Your task to perform on an android device: make emails show in primary in the gmail app Image 0: 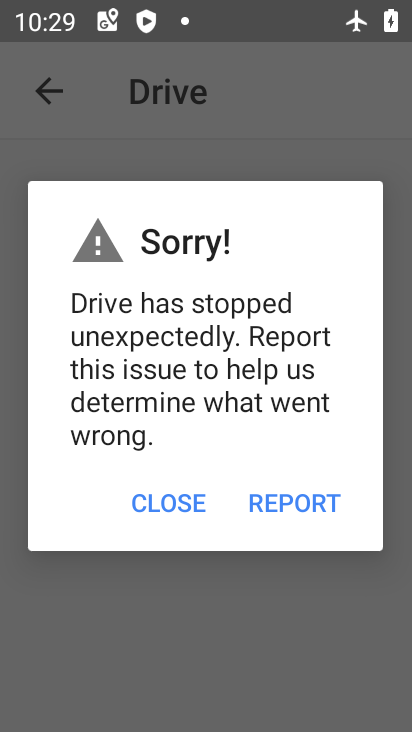
Step 0: press home button
Your task to perform on an android device: make emails show in primary in the gmail app Image 1: 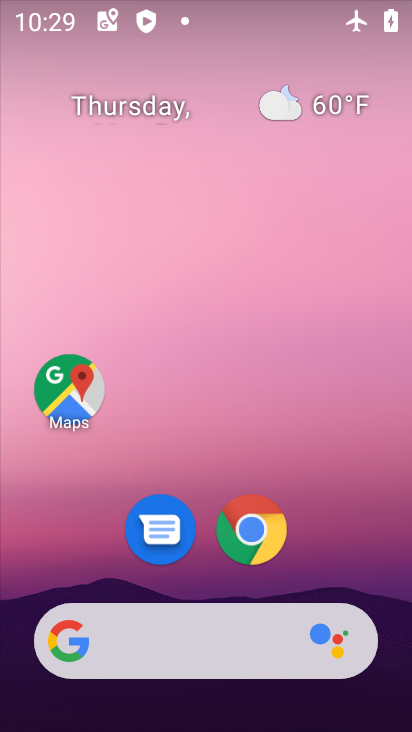
Step 1: drag from (346, 551) to (213, 168)
Your task to perform on an android device: make emails show in primary in the gmail app Image 2: 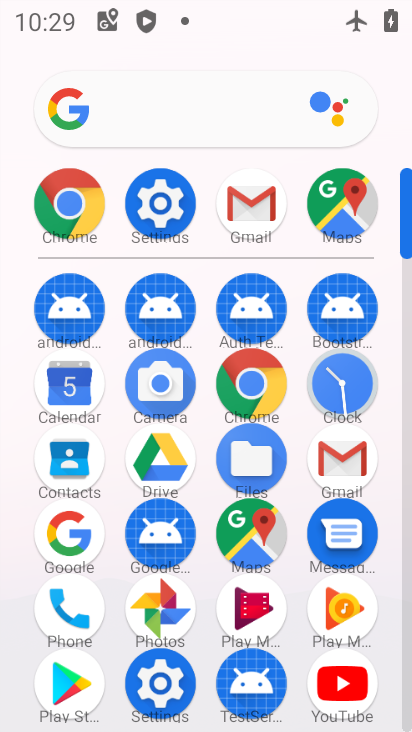
Step 2: click (339, 456)
Your task to perform on an android device: make emails show in primary in the gmail app Image 3: 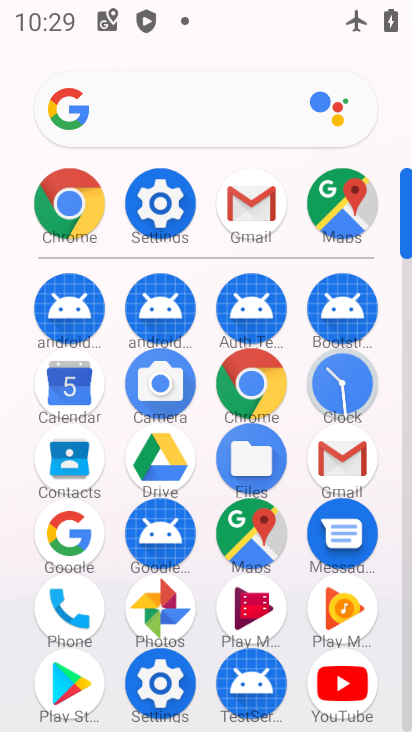
Step 3: click (339, 456)
Your task to perform on an android device: make emails show in primary in the gmail app Image 4: 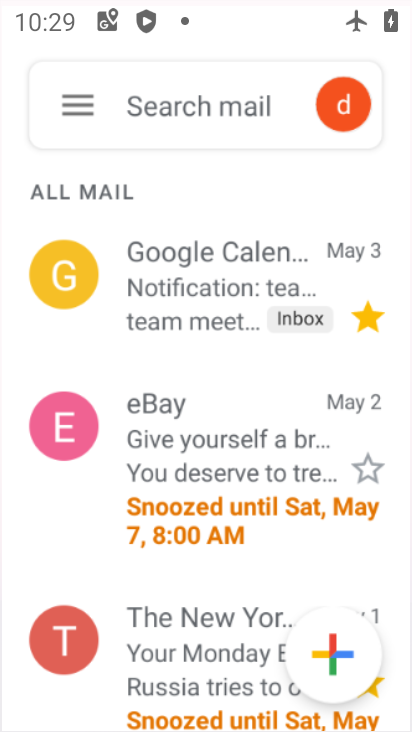
Step 4: click (339, 456)
Your task to perform on an android device: make emails show in primary in the gmail app Image 5: 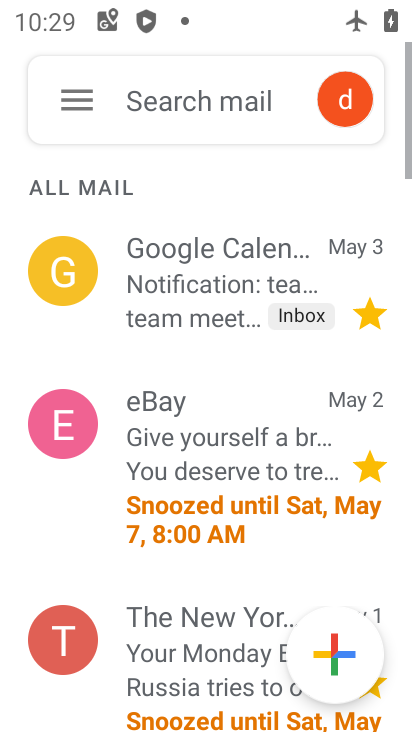
Step 5: click (340, 456)
Your task to perform on an android device: make emails show in primary in the gmail app Image 6: 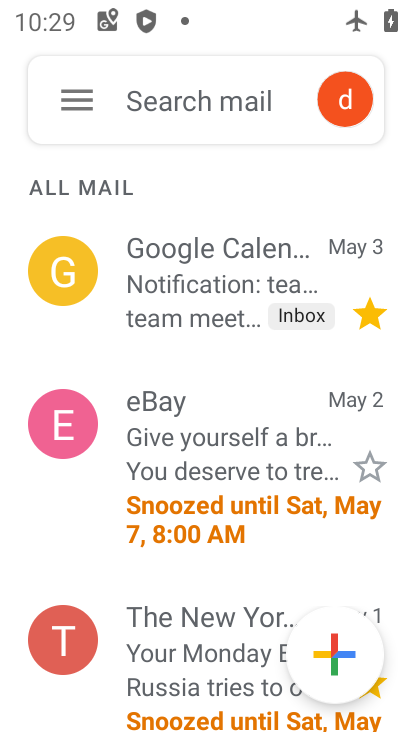
Step 6: click (82, 98)
Your task to perform on an android device: make emails show in primary in the gmail app Image 7: 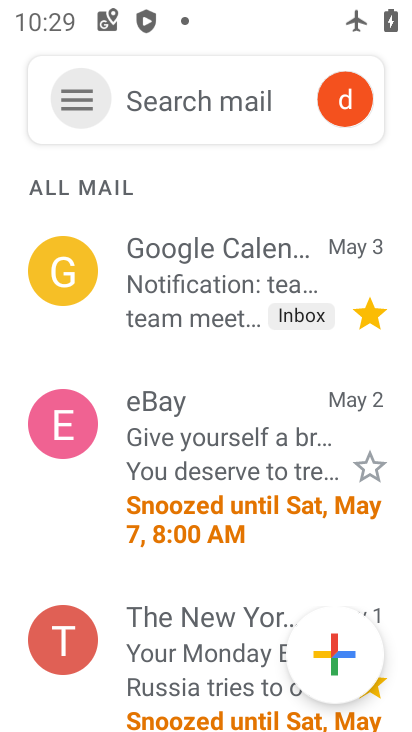
Step 7: click (76, 100)
Your task to perform on an android device: make emails show in primary in the gmail app Image 8: 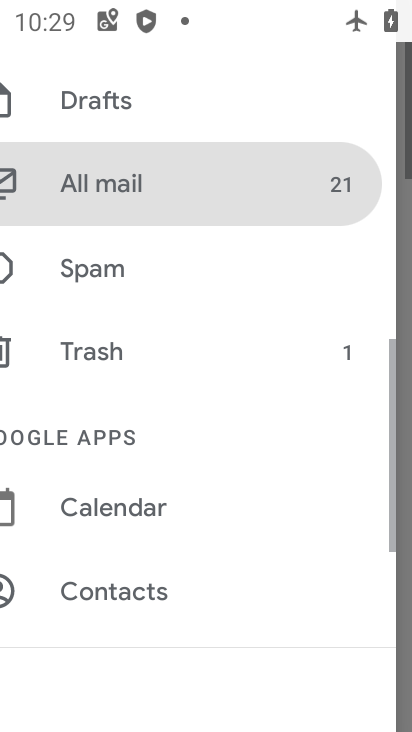
Step 8: click (76, 100)
Your task to perform on an android device: make emails show in primary in the gmail app Image 9: 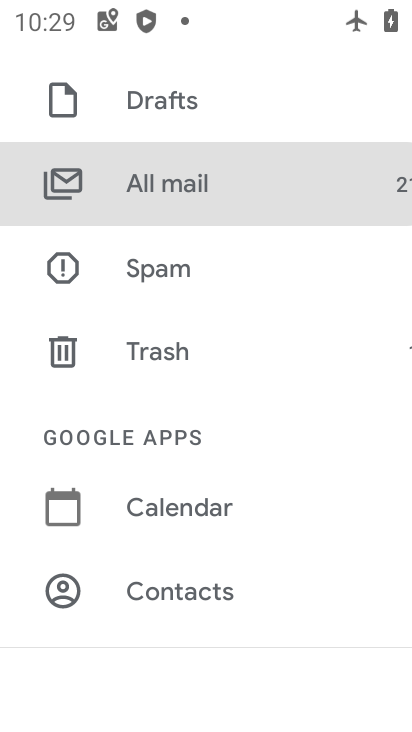
Step 9: drag from (242, 602) to (186, 167)
Your task to perform on an android device: make emails show in primary in the gmail app Image 10: 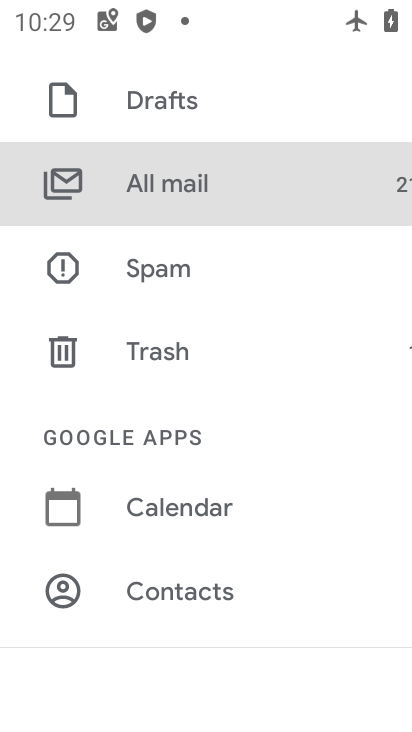
Step 10: drag from (192, 559) to (180, 227)
Your task to perform on an android device: make emails show in primary in the gmail app Image 11: 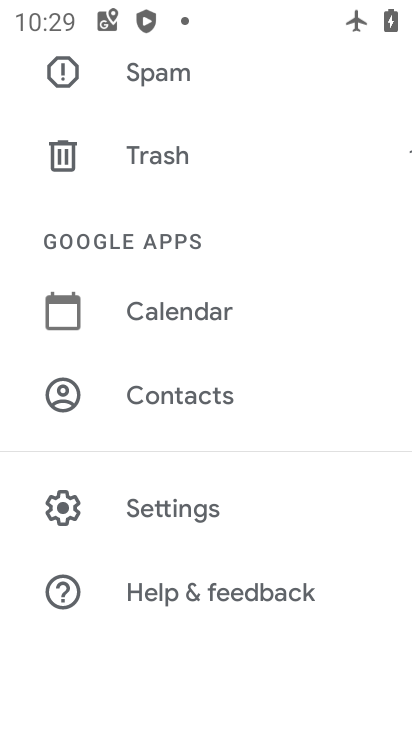
Step 11: click (170, 508)
Your task to perform on an android device: make emails show in primary in the gmail app Image 12: 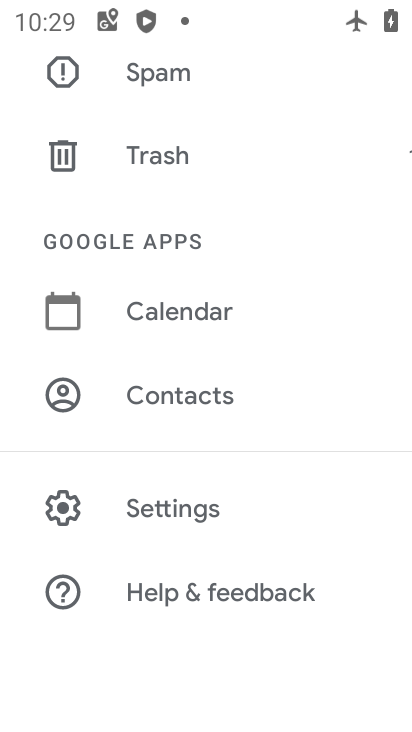
Step 12: click (170, 508)
Your task to perform on an android device: make emails show in primary in the gmail app Image 13: 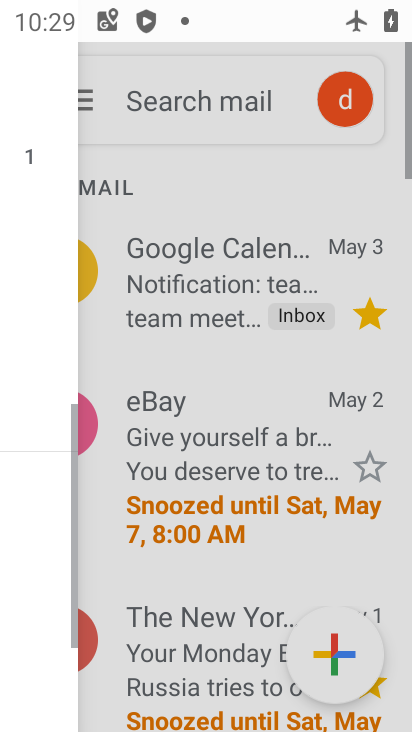
Step 13: click (170, 508)
Your task to perform on an android device: make emails show in primary in the gmail app Image 14: 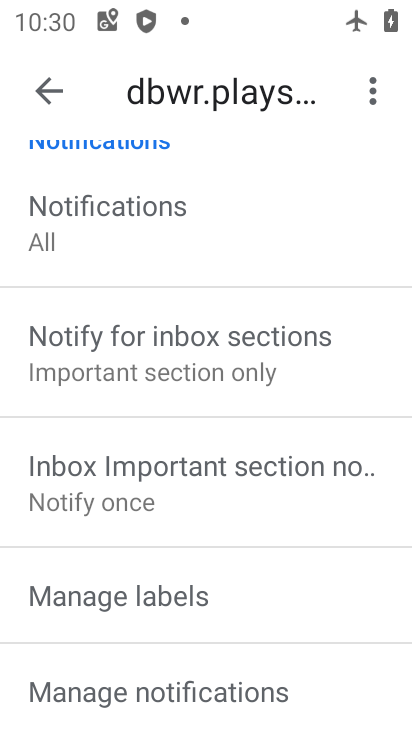
Step 14: task complete